Your task to perform on an android device: Open settings on Google Maps Image 0: 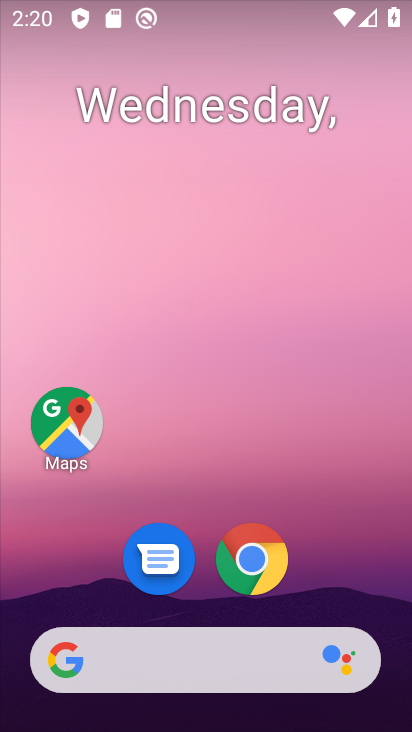
Step 0: drag from (355, 575) to (359, 153)
Your task to perform on an android device: Open settings on Google Maps Image 1: 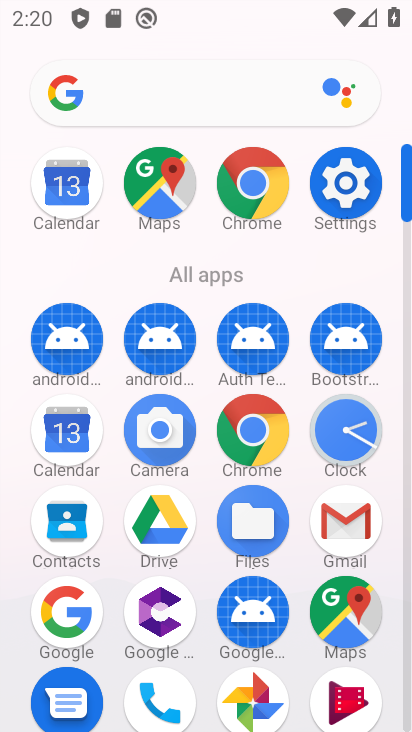
Step 1: click (351, 622)
Your task to perform on an android device: Open settings on Google Maps Image 2: 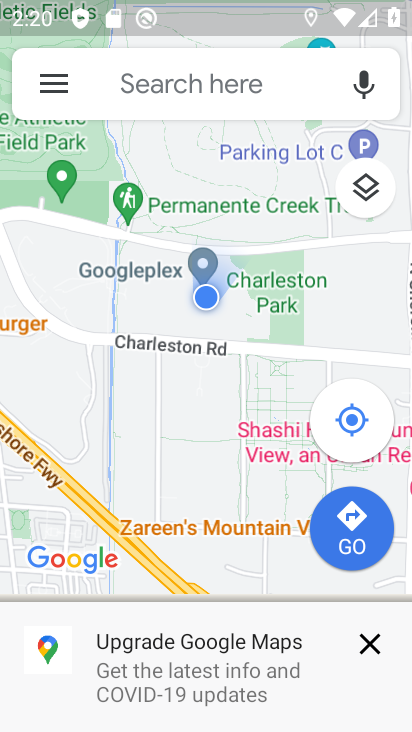
Step 2: click (50, 89)
Your task to perform on an android device: Open settings on Google Maps Image 3: 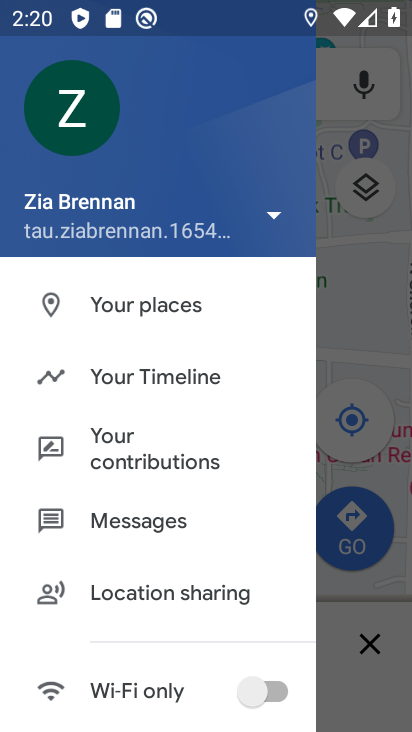
Step 3: drag from (254, 429) to (272, 335)
Your task to perform on an android device: Open settings on Google Maps Image 4: 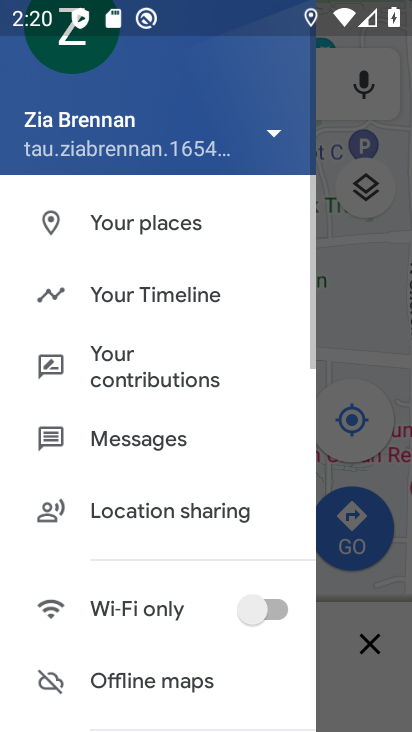
Step 4: drag from (261, 418) to (262, 324)
Your task to perform on an android device: Open settings on Google Maps Image 5: 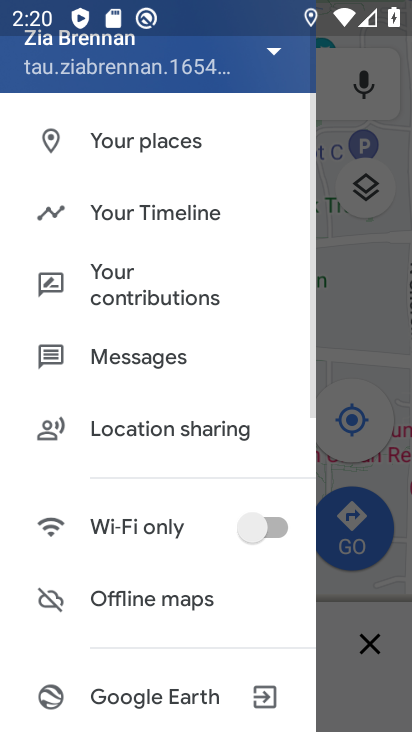
Step 5: drag from (260, 341) to (260, 176)
Your task to perform on an android device: Open settings on Google Maps Image 6: 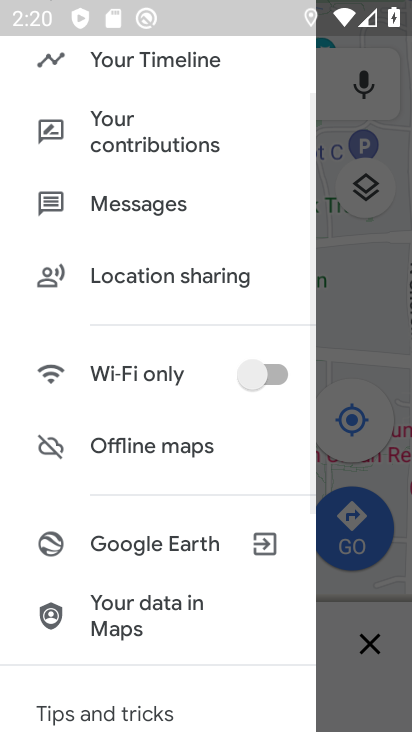
Step 6: drag from (241, 284) to (248, 186)
Your task to perform on an android device: Open settings on Google Maps Image 7: 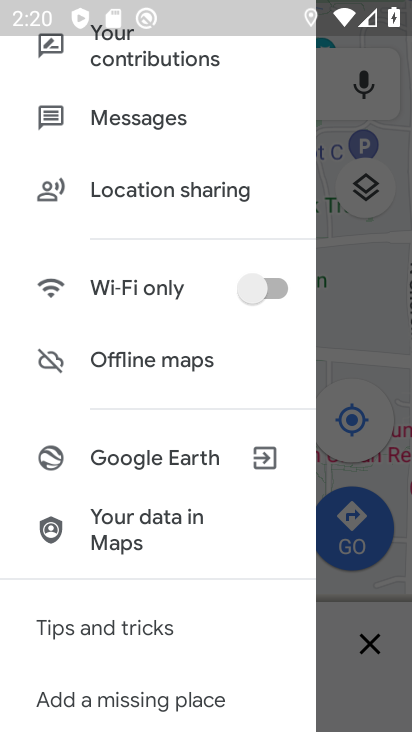
Step 7: drag from (216, 241) to (212, 375)
Your task to perform on an android device: Open settings on Google Maps Image 8: 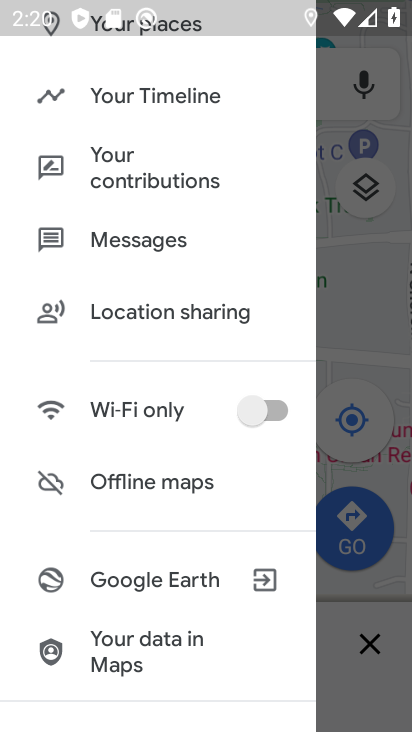
Step 8: drag from (238, 166) to (225, 326)
Your task to perform on an android device: Open settings on Google Maps Image 9: 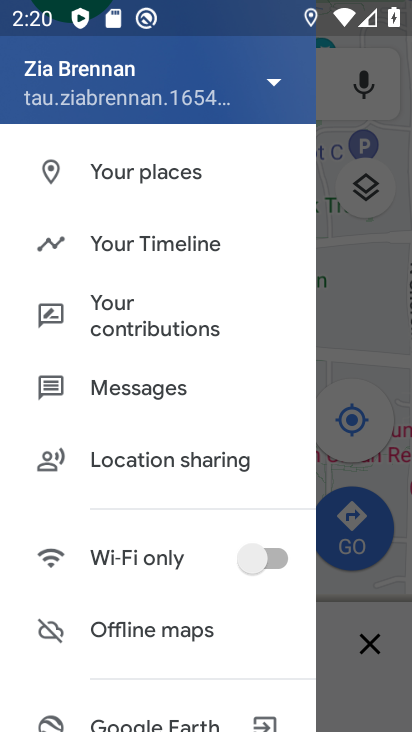
Step 9: drag from (222, 370) to (241, 202)
Your task to perform on an android device: Open settings on Google Maps Image 10: 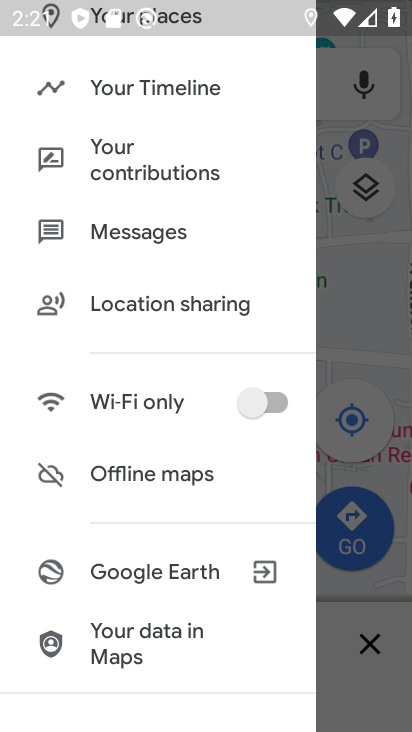
Step 10: drag from (212, 405) to (214, 235)
Your task to perform on an android device: Open settings on Google Maps Image 11: 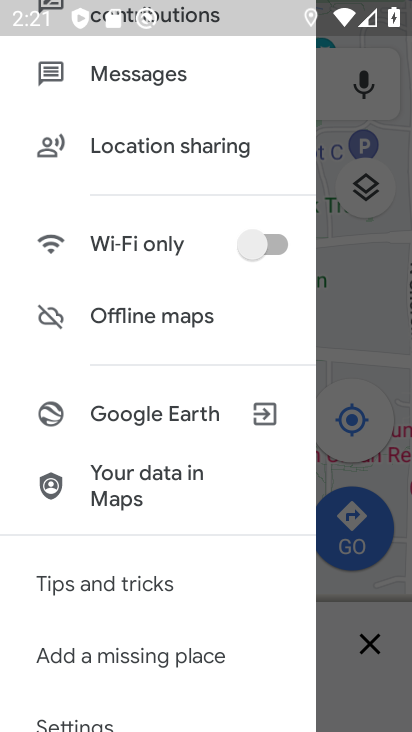
Step 11: drag from (216, 467) to (220, 303)
Your task to perform on an android device: Open settings on Google Maps Image 12: 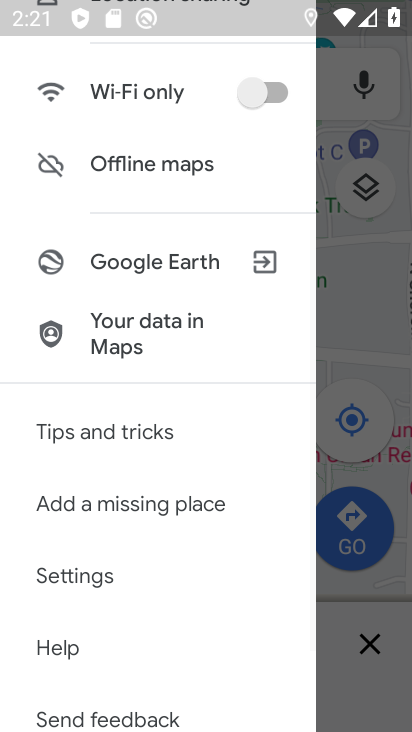
Step 12: drag from (218, 541) to (222, 367)
Your task to perform on an android device: Open settings on Google Maps Image 13: 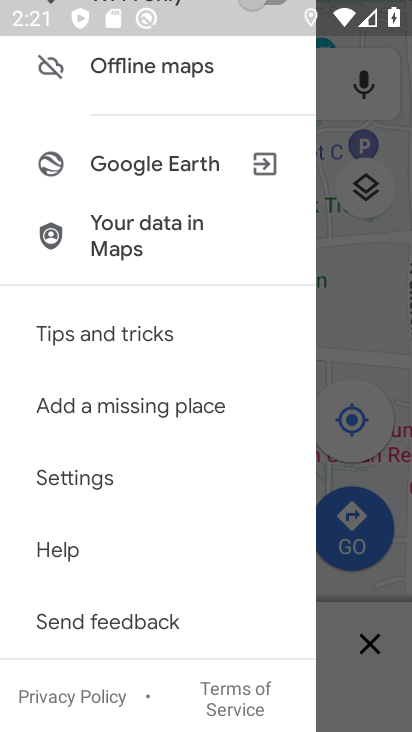
Step 13: click (121, 487)
Your task to perform on an android device: Open settings on Google Maps Image 14: 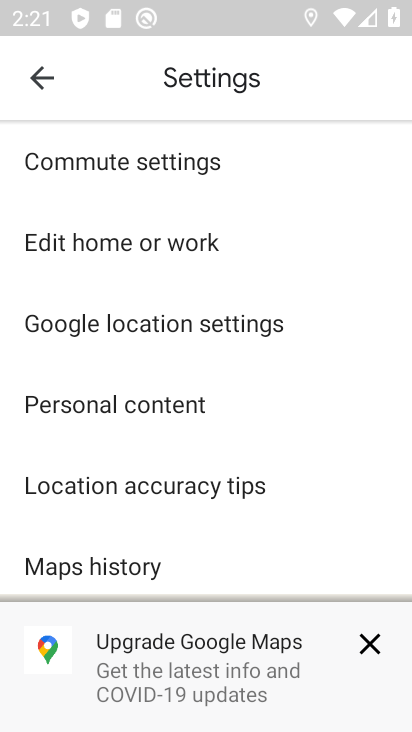
Step 14: task complete